Your task to perform on an android device: read, delete, or share a saved page in the chrome app Image 0: 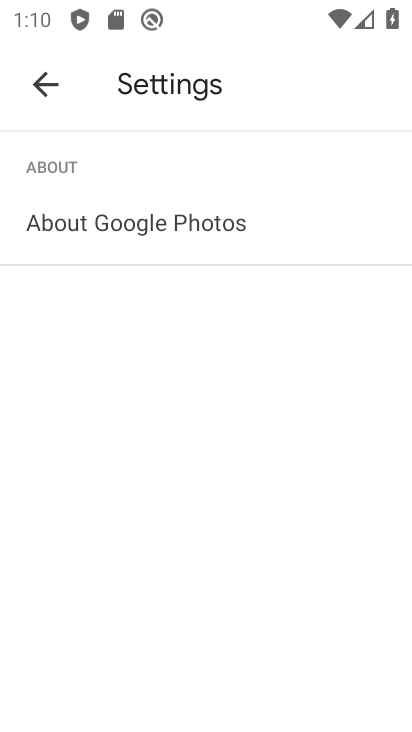
Step 0: press home button
Your task to perform on an android device: read, delete, or share a saved page in the chrome app Image 1: 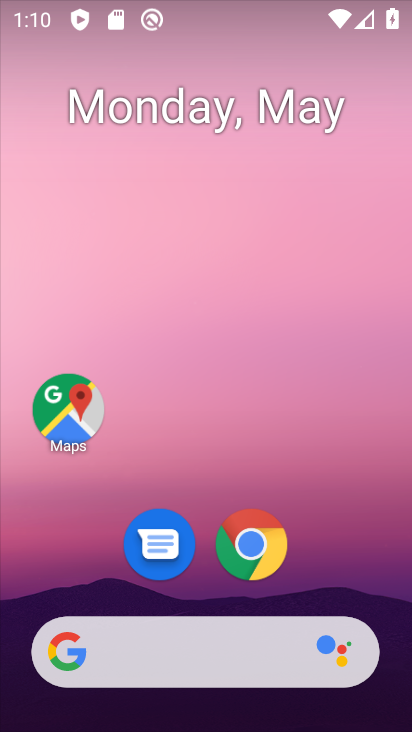
Step 1: drag from (374, 579) to (386, 201)
Your task to perform on an android device: read, delete, or share a saved page in the chrome app Image 2: 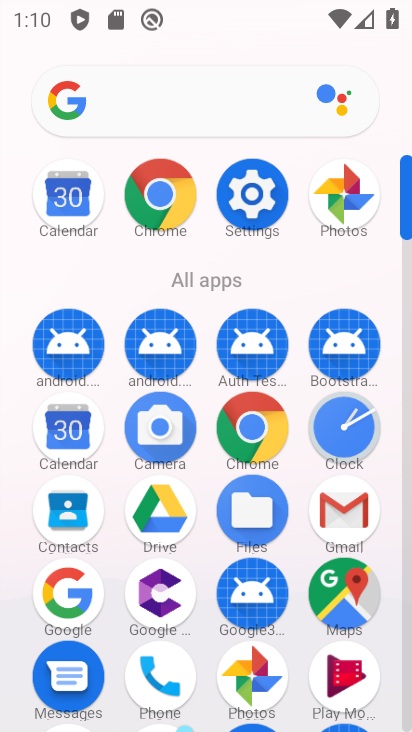
Step 2: click (279, 437)
Your task to perform on an android device: read, delete, or share a saved page in the chrome app Image 3: 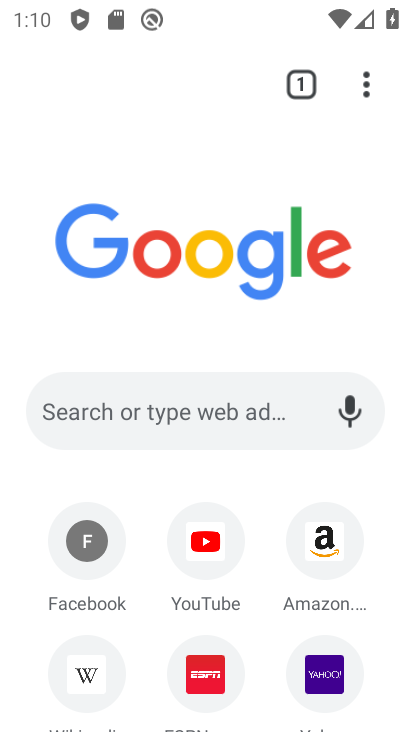
Step 3: click (366, 95)
Your task to perform on an android device: read, delete, or share a saved page in the chrome app Image 4: 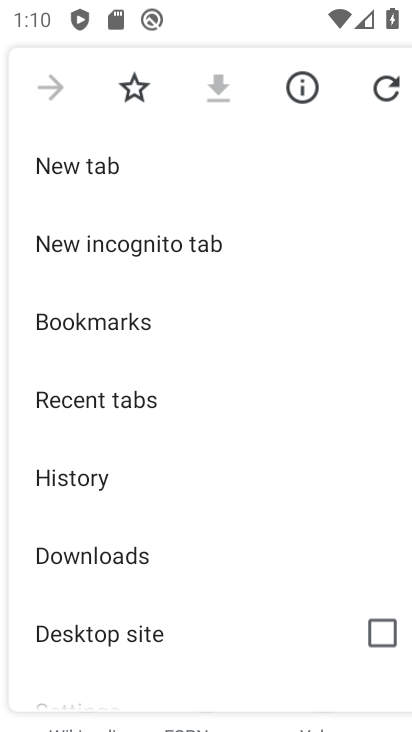
Step 4: drag from (278, 472) to (288, 350)
Your task to perform on an android device: read, delete, or share a saved page in the chrome app Image 5: 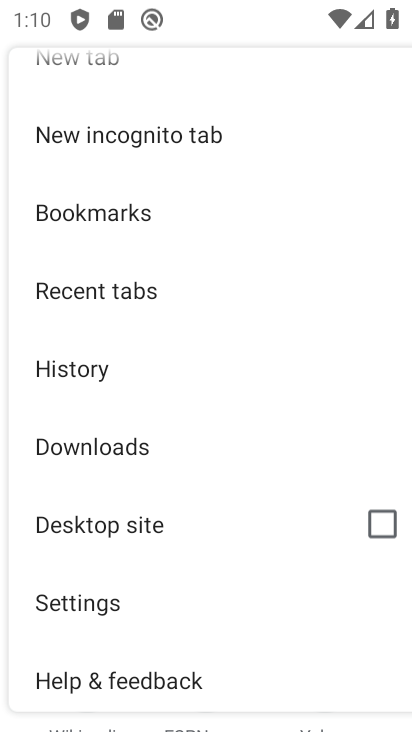
Step 5: drag from (258, 529) to (251, 357)
Your task to perform on an android device: read, delete, or share a saved page in the chrome app Image 6: 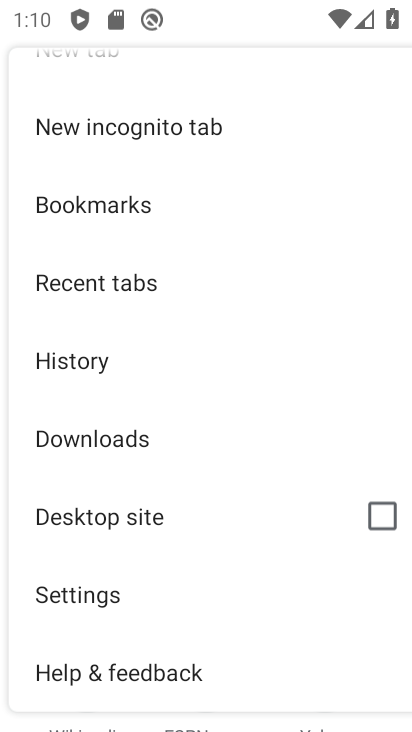
Step 6: drag from (269, 271) to (253, 385)
Your task to perform on an android device: read, delete, or share a saved page in the chrome app Image 7: 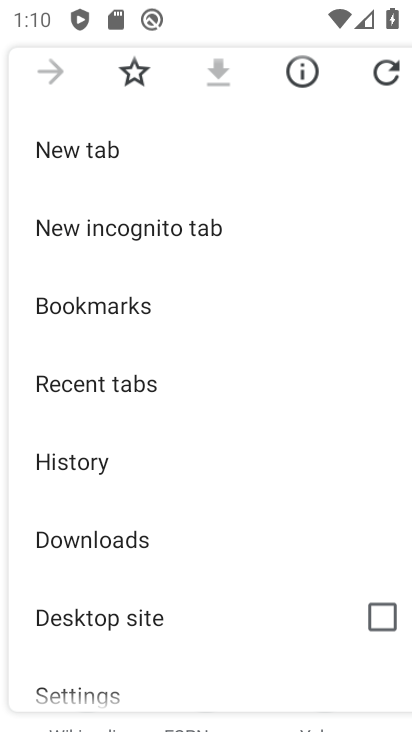
Step 7: drag from (280, 238) to (260, 402)
Your task to perform on an android device: read, delete, or share a saved page in the chrome app Image 8: 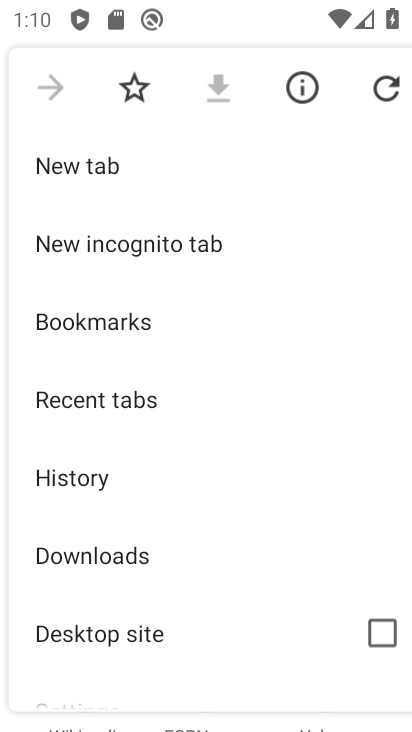
Step 8: click (142, 562)
Your task to perform on an android device: read, delete, or share a saved page in the chrome app Image 9: 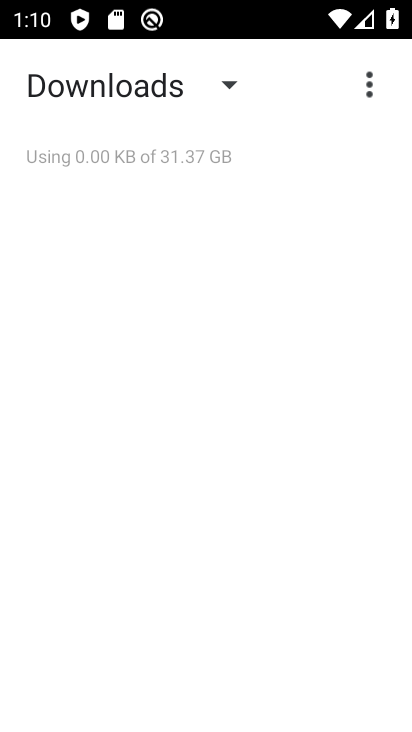
Step 9: click (220, 83)
Your task to perform on an android device: read, delete, or share a saved page in the chrome app Image 10: 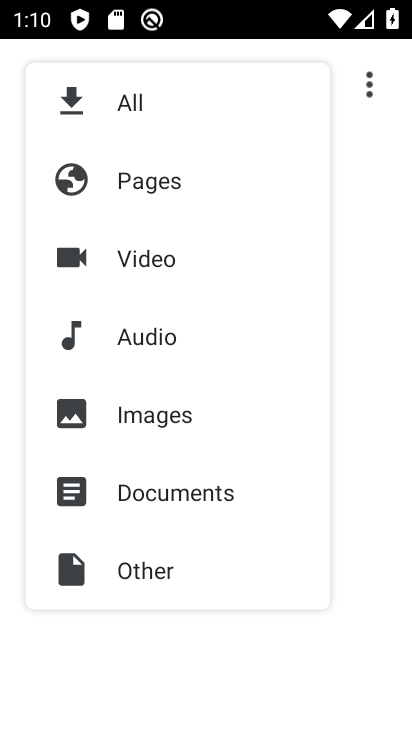
Step 10: click (169, 185)
Your task to perform on an android device: read, delete, or share a saved page in the chrome app Image 11: 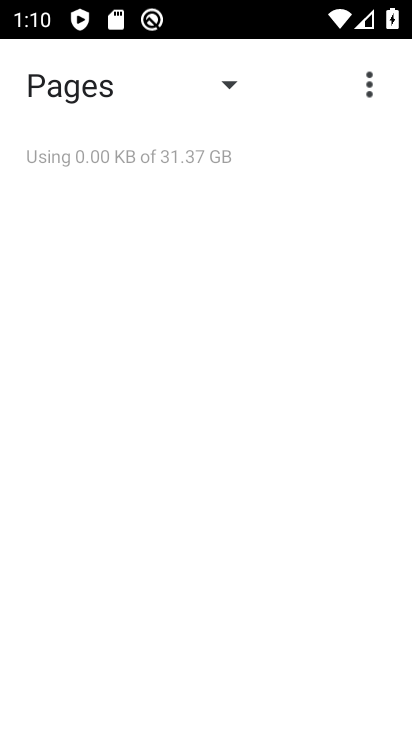
Step 11: task complete